Your task to perform on an android device: turn on airplane mode Image 0: 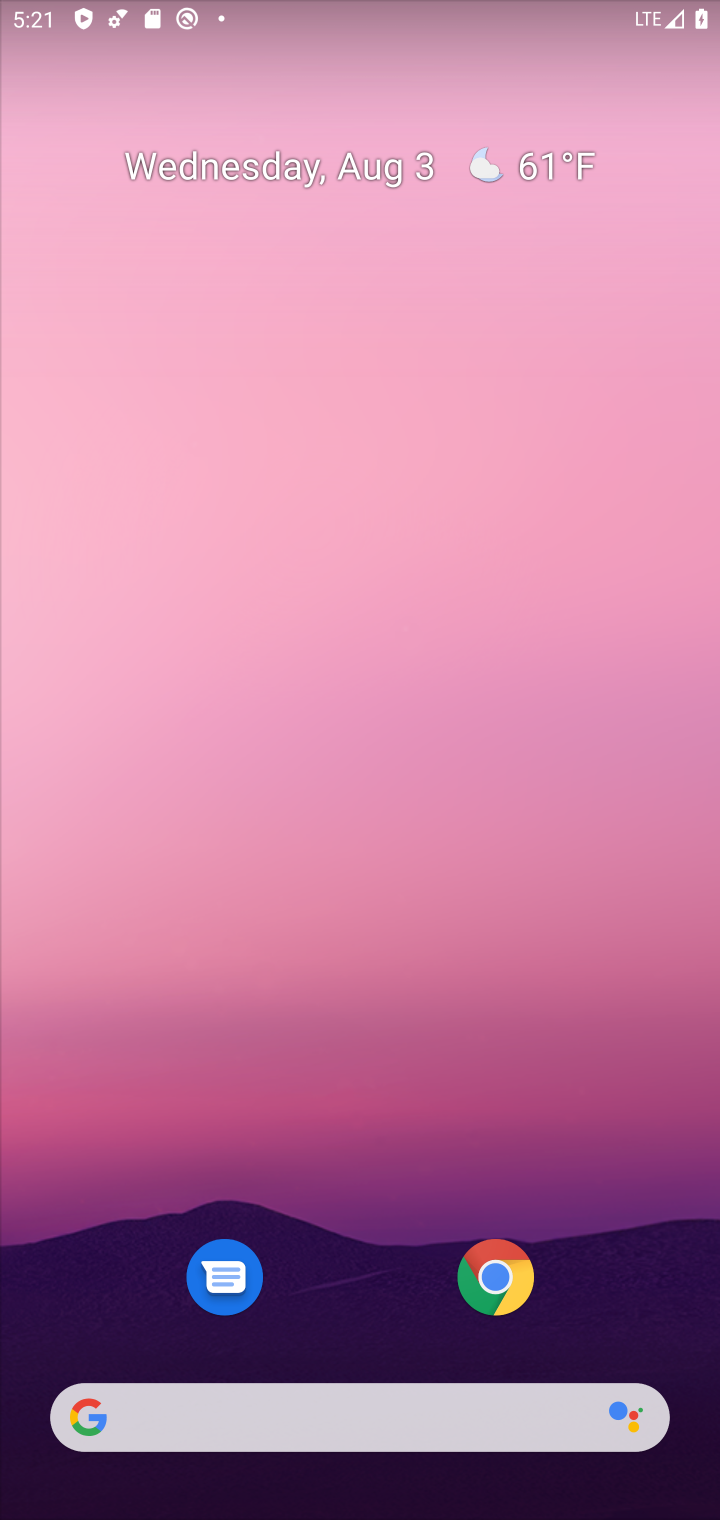
Step 0: drag from (650, 74) to (526, 1028)
Your task to perform on an android device: turn on airplane mode Image 1: 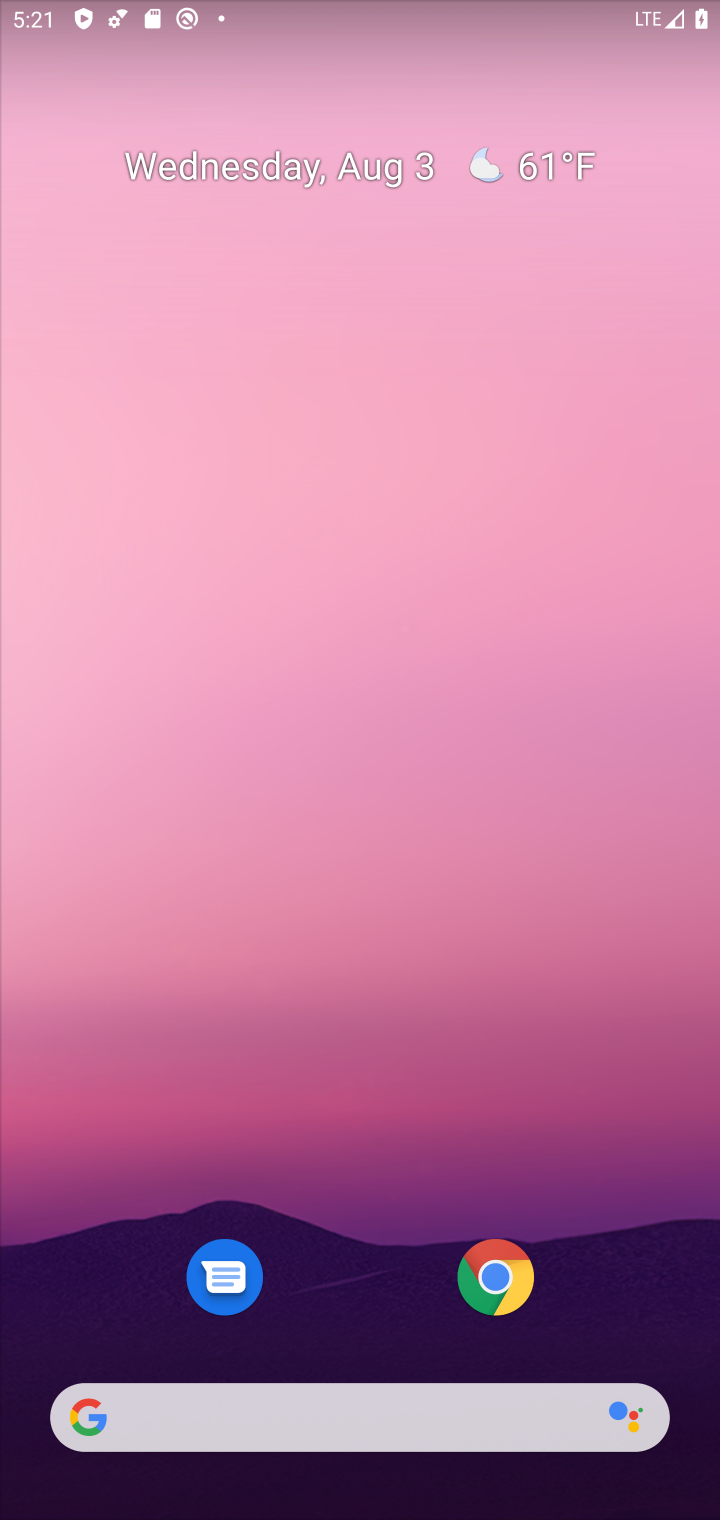
Step 1: drag from (656, 25) to (539, 1315)
Your task to perform on an android device: turn on airplane mode Image 2: 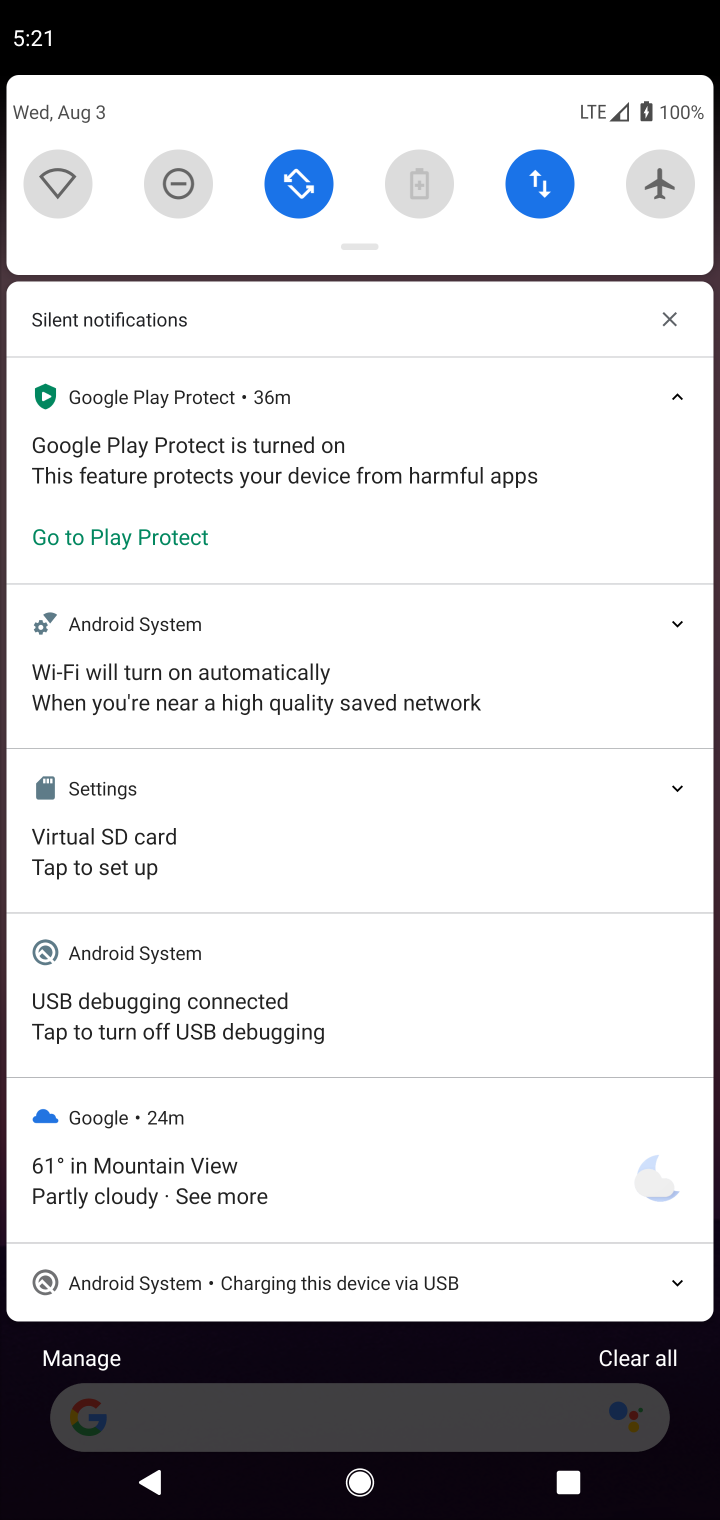
Step 2: click (671, 176)
Your task to perform on an android device: turn on airplane mode Image 3: 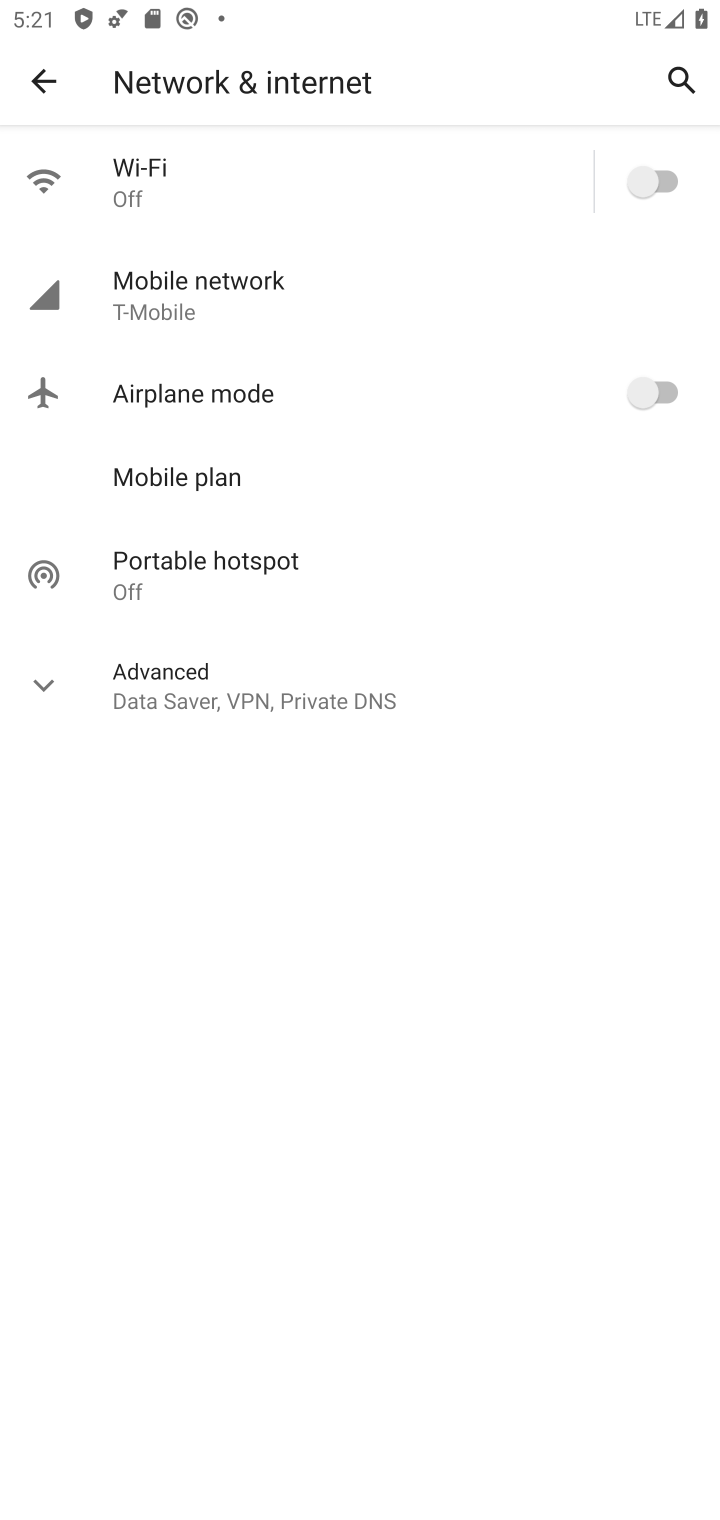
Step 3: click (659, 399)
Your task to perform on an android device: turn on airplane mode Image 4: 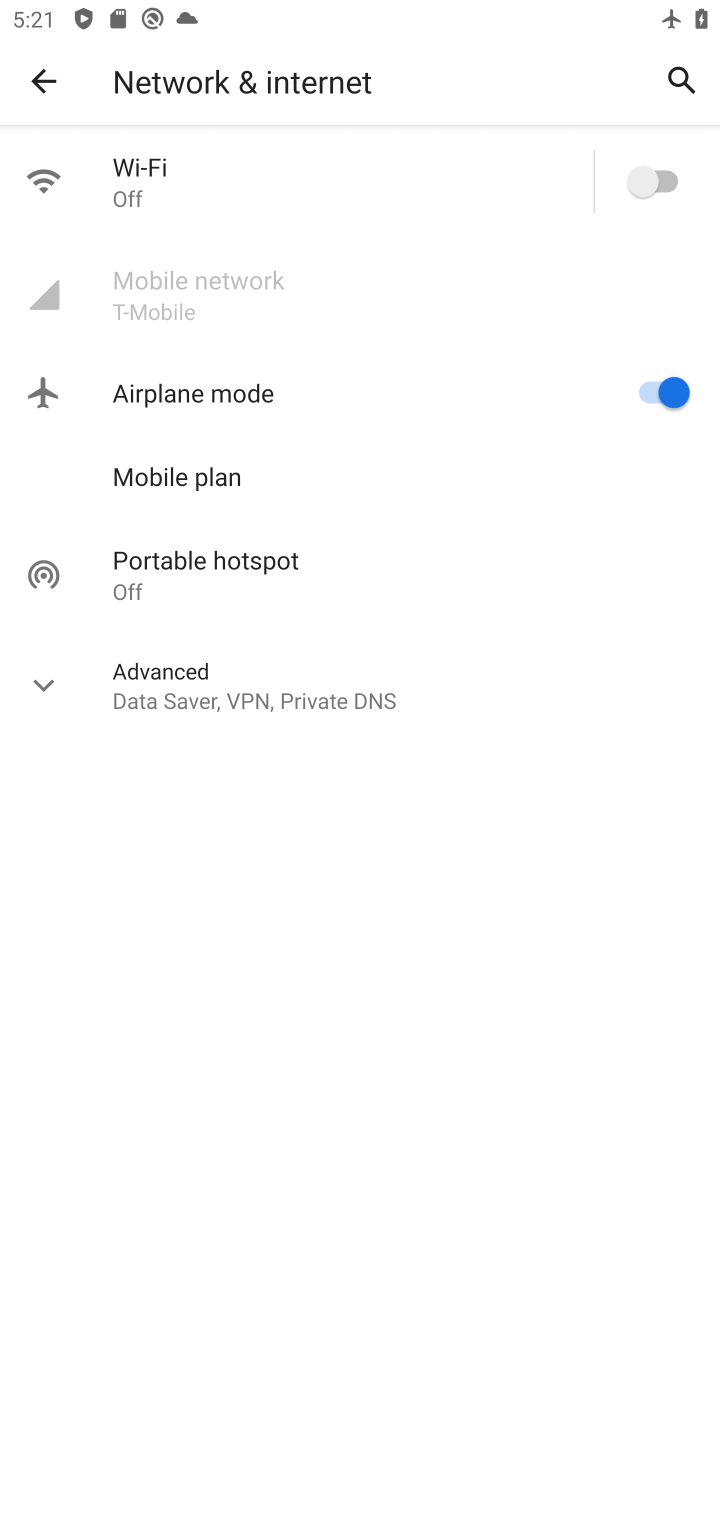
Step 4: task complete